Your task to perform on an android device: toggle sleep mode Image 0: 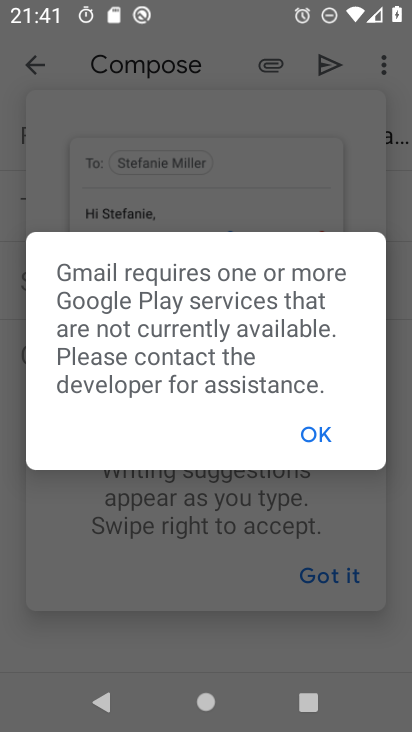
Step 0: click (315, 434)
Your task to perform on an android device: toggle sleep mode Image 1: 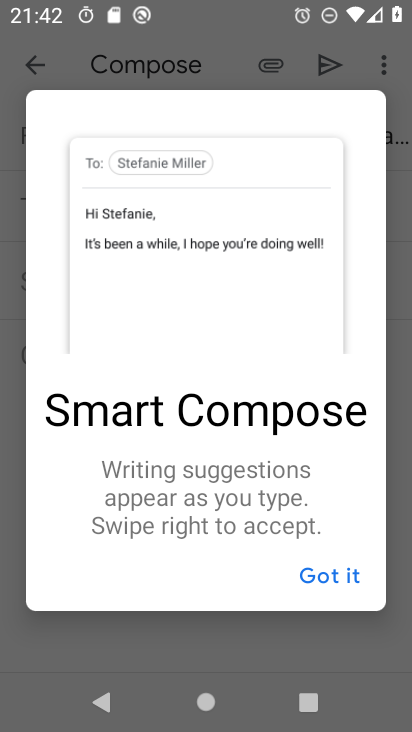
Step 1: press home button
Your task to perform on an android device: toggle sleep mode Image 2: 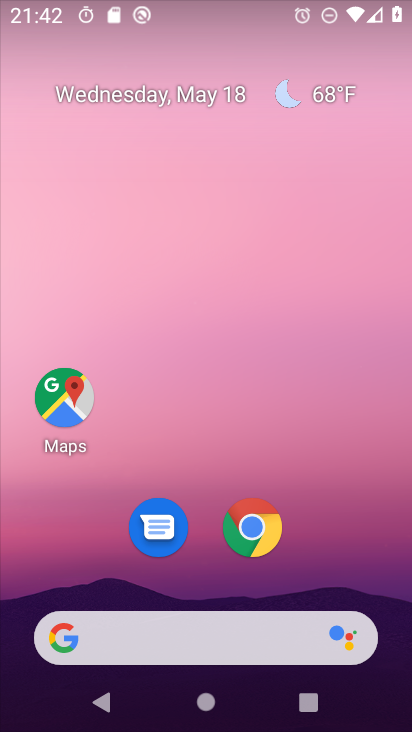
Step 2: drag from (394, 675) to (349, 228)
Your task to perform on an android device: toggle sleep mode Image 3: 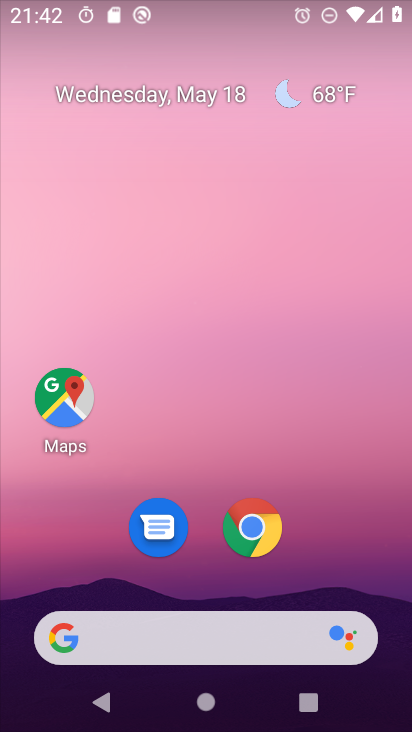
Step 3: drag from (396, 691) to (403, 56)
Your task to perform on an android device: toggle sleep mode Image 4: 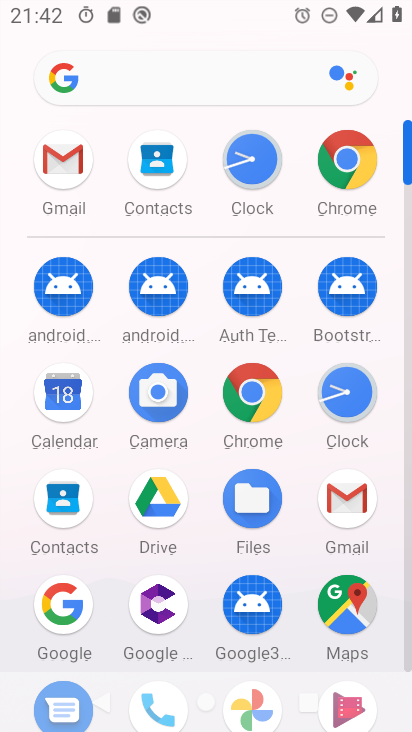
Step 4: drag from (411, 127) to (408, 35)
Your task to perform on an android device: toggle sleep mode Image 5: 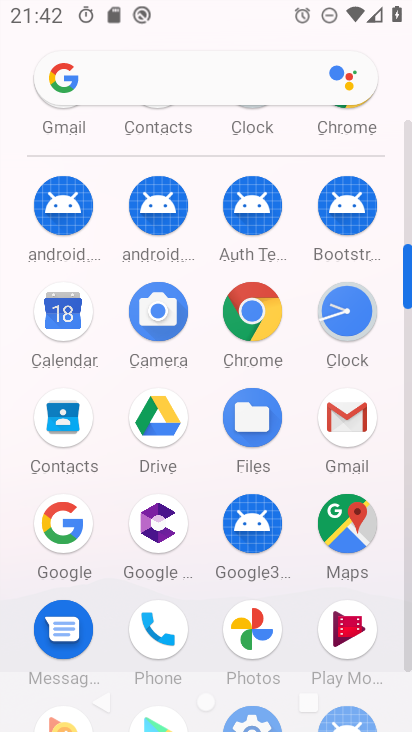
Step 5: drag from (406, 252) to (405, 155)
Your task to perform on an android device: toggle sleep mode Image 6: 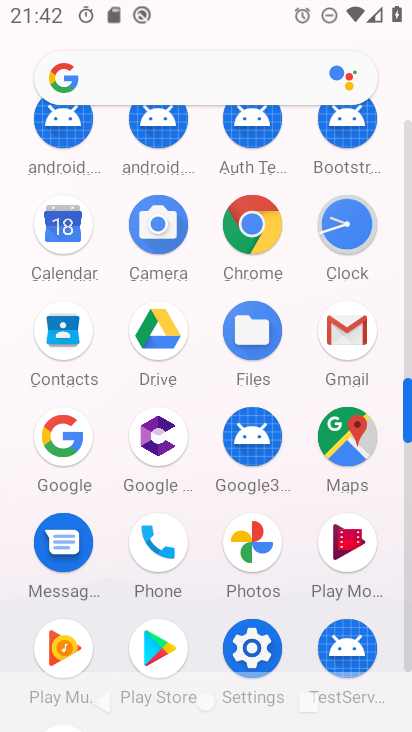
Step 6: click (255, 656)
Your task to perform on an android device: toggle sleep mode Image 7: 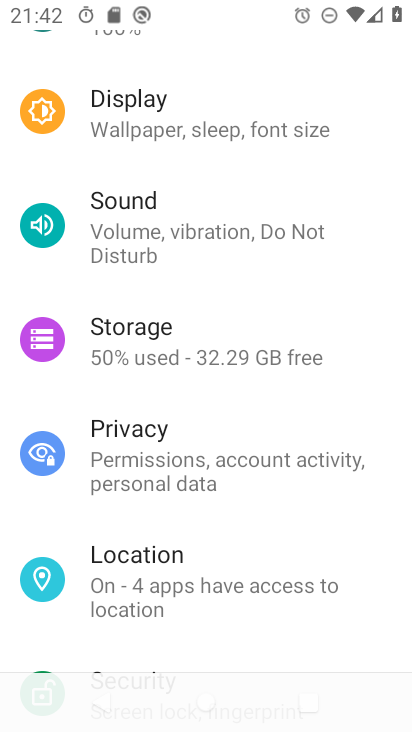
Step 7: click (131, 123)
Your task to perform on an android device: toggle sleep mode Image 8: 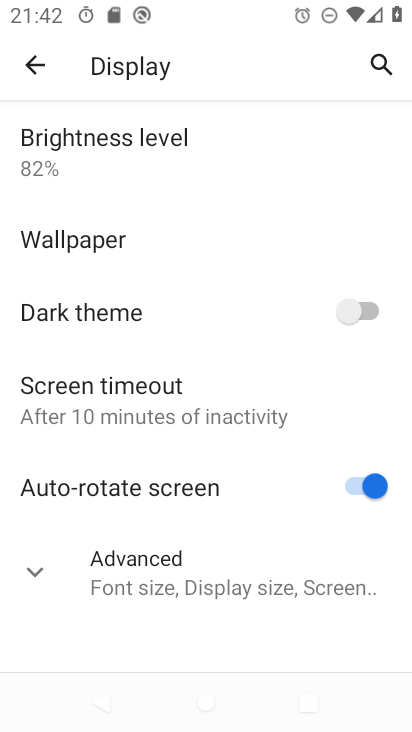
Step 8: click (79, 399)
Your task to perform on an android device: toggle sleep mode Image 9: 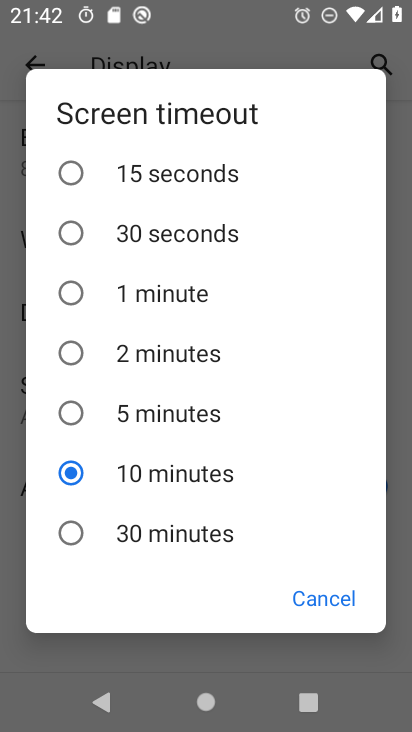
Step 9: click (62, 411)
Your task to perform on an android device: toggle sleep mode Image 10: 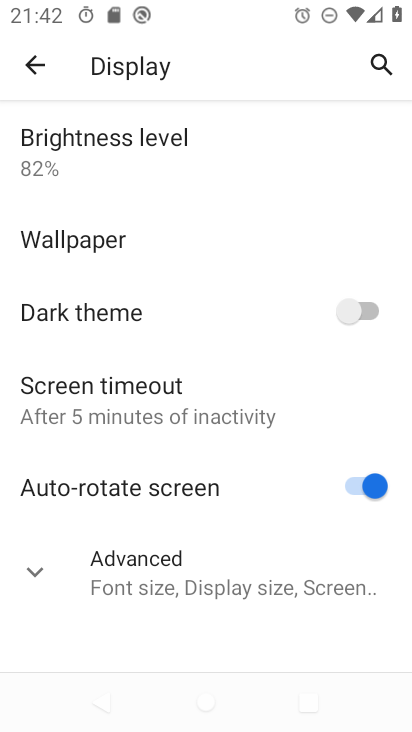
Step 10: task complete